Your task to perform on an android device: turn off javascript in the chrome app Image 0: 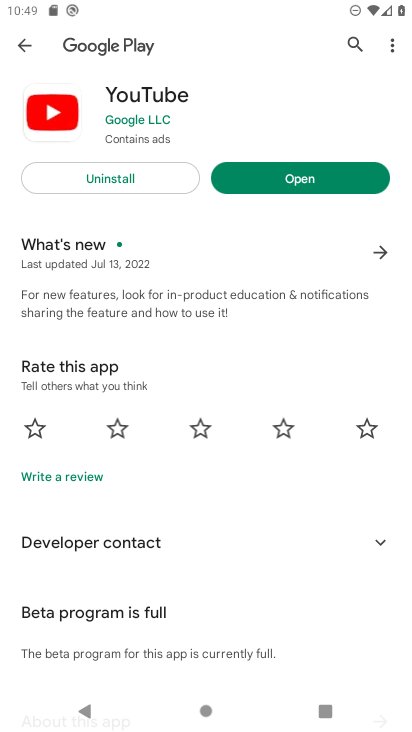
Step 0: press home button
Your task to perform on an android device: turn off javascript in the chrome app Image 1: 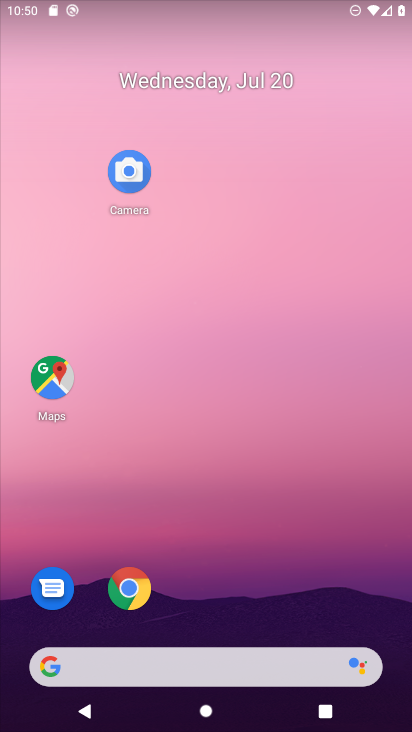
Step 1: click (129, 586)
Your task to perform on an android device: turn off javascript in the chrome app Image 2: 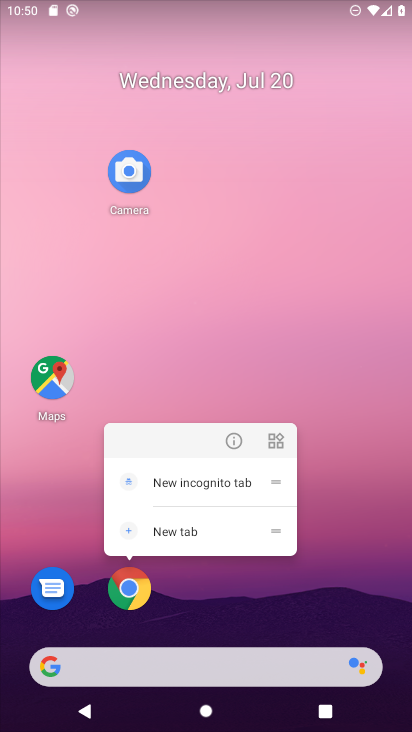
Step 2: click (131, 596)
Your task to perform on an android device: turn off javascript in the chrome app Image 3: 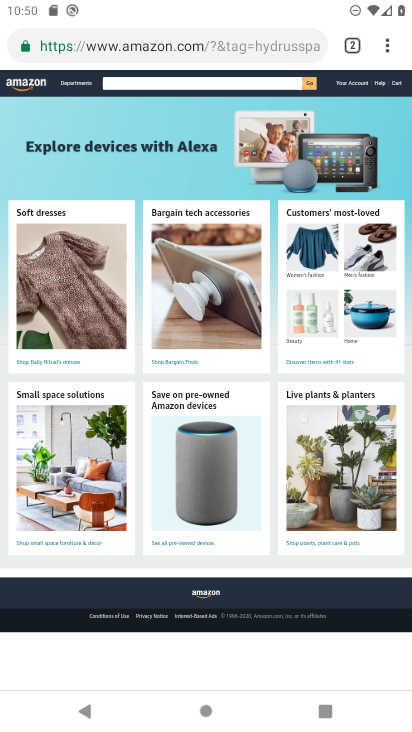
Step 3: drag from (395, 43) to (235, 550)
Your task to perform on an android device: turn off javascript in the chrome app Image 4: 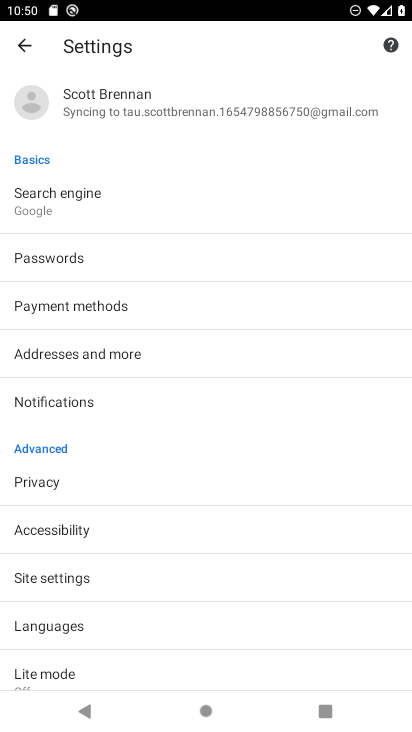
Step 4: click (71, 573)
Your task to perform on an android device: turn off javascript in the chrome app Image 5: 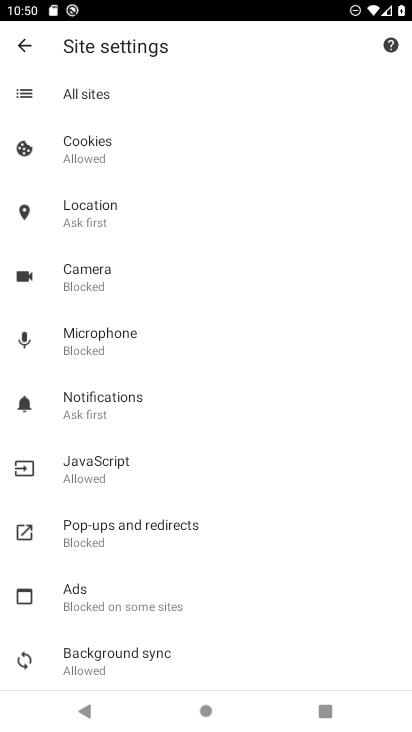
Step 5: click (136, 467)
Your task to perform on an android device: turn off javascript in the chrome app Image 6: 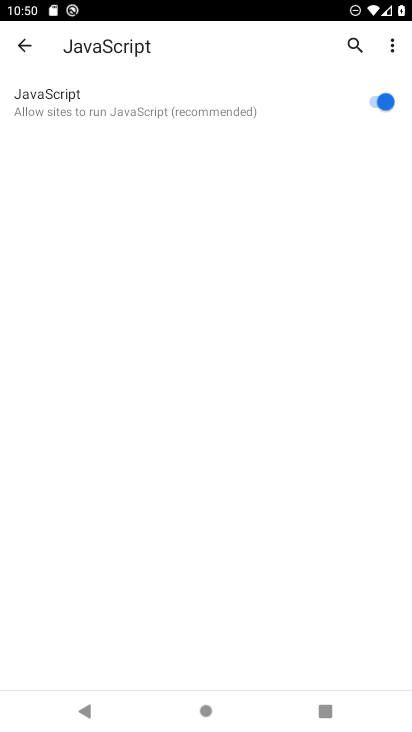
Step 6: click (378, 98)
Your task to perform on an android device: turn off javascript in the chrome app Image 7: 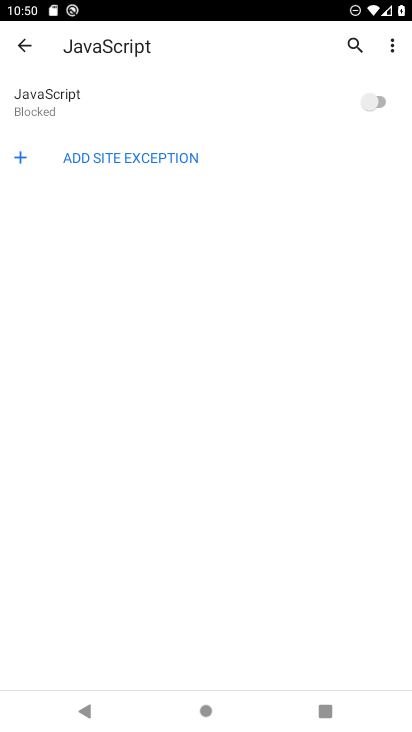
Step 7: task complete